Your task to perform on an android device: see tabs open on other devices in the chrome app Image 0: 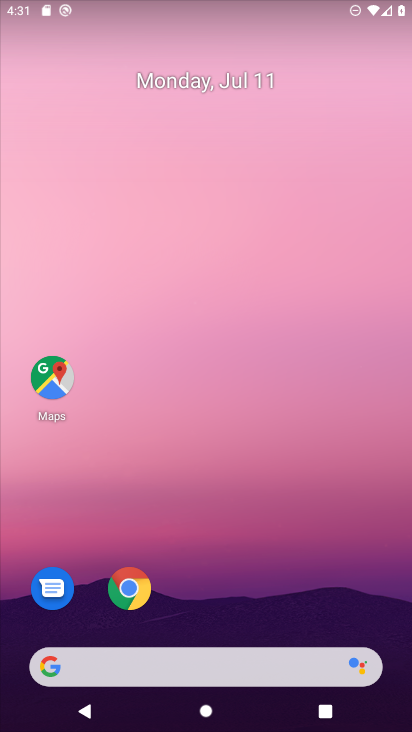
Step 0: press home button
Your task to perform on an android device: see tabs open on other devices in the chrome app Image 1: 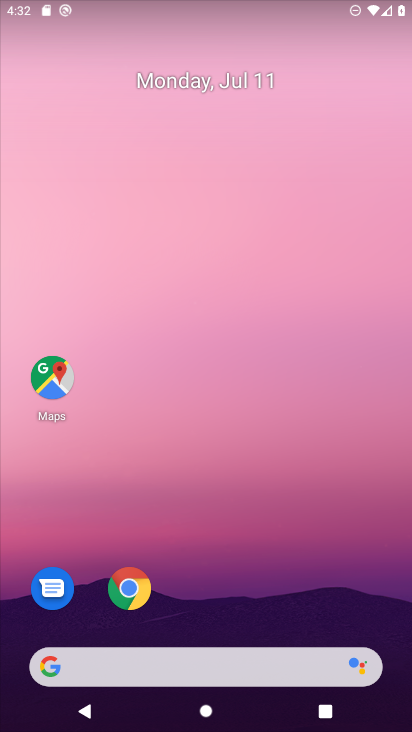
Step 1: drag from (226, 630) to (219, 18)
Your task to perform on an android device: see tabs open on other devices in the chrome app Image 2: 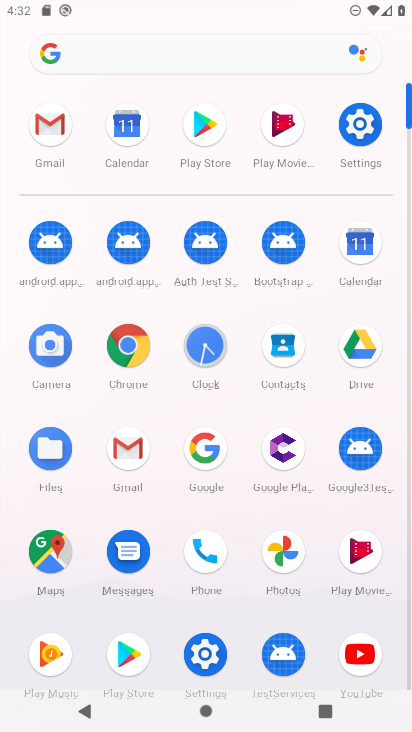
Step 2: click (111, 341)
Your task to perform on an android device: see tabs open on other devices in the chrome app Image 3: 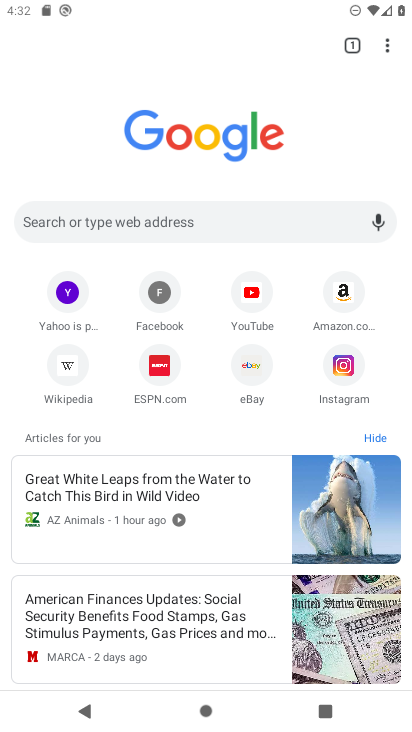
Step 3: click (389, 42)
Your task to perform on an android device: see tabs open on other devices in the chrome app Image 4: 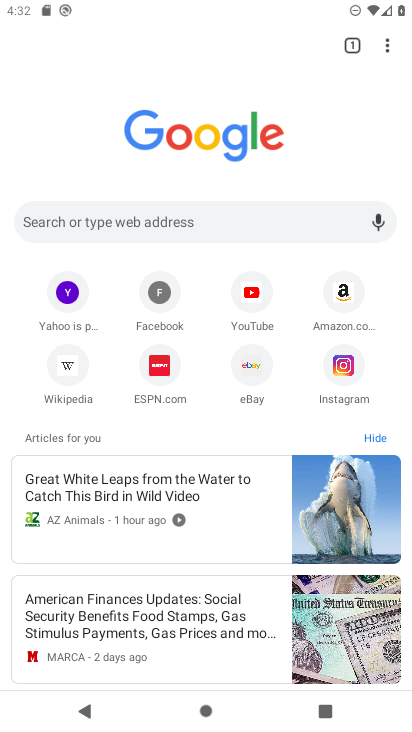
Step 4: task complete